Your task to perform on an android device: turn off translation in the chrome app Image 0: 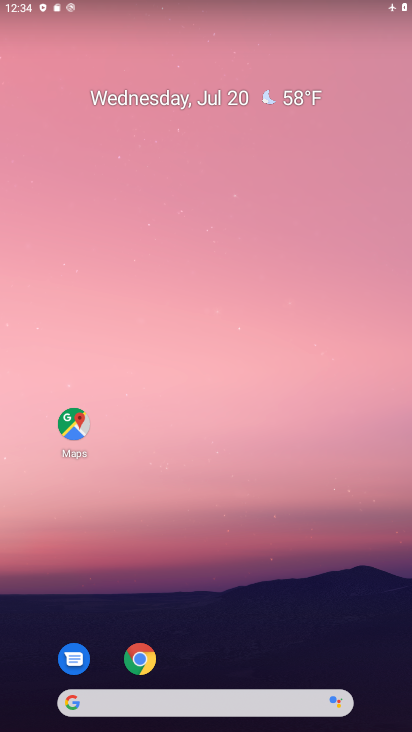
Step 0: press home button
Your task to perform on an android device: turn off translation in the chrome app Image 1: 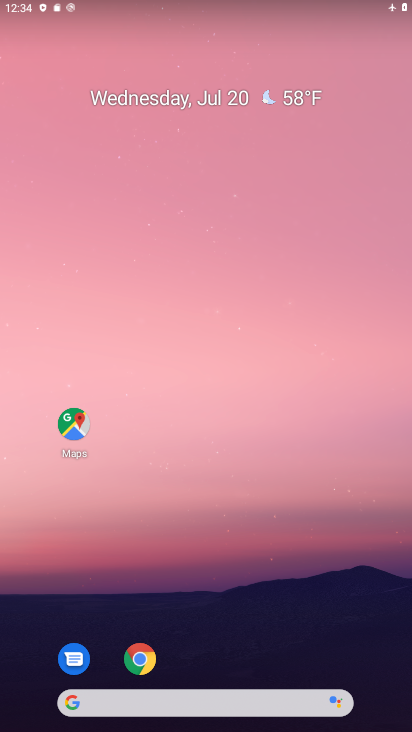
Step 1: drag from (216, 668) to (231, 57)
Your task to perform on an android device: turn off translation in the chrome app Image 2: 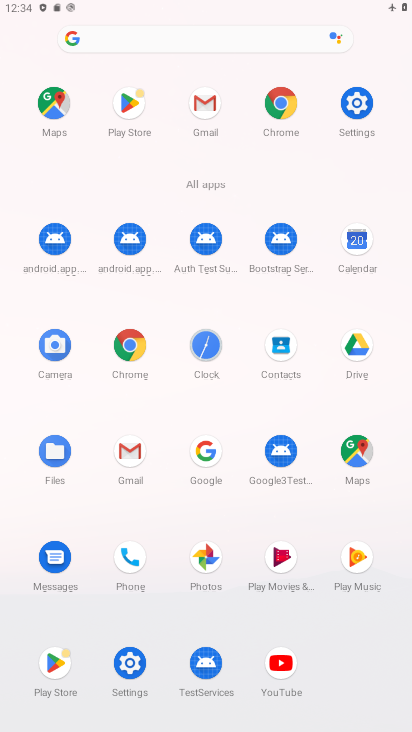
Step 2: click (126, 338)
Your task to perform on an android device: turn off translation in the chrome app Image 3: 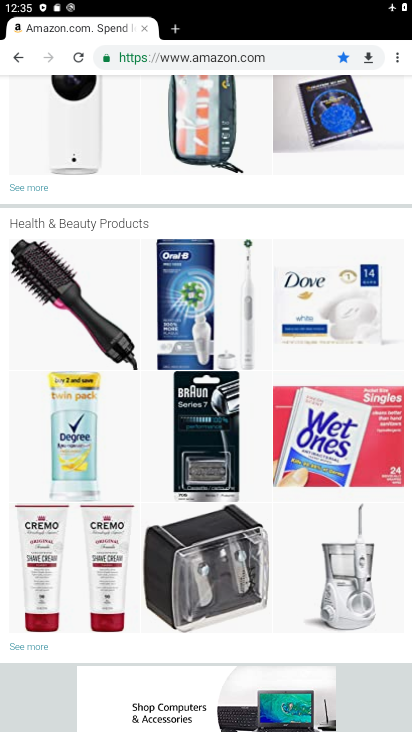
Step 3: click (399, 52)
Your task to perform on an android device: turn off translation in the chrome app Image 4: 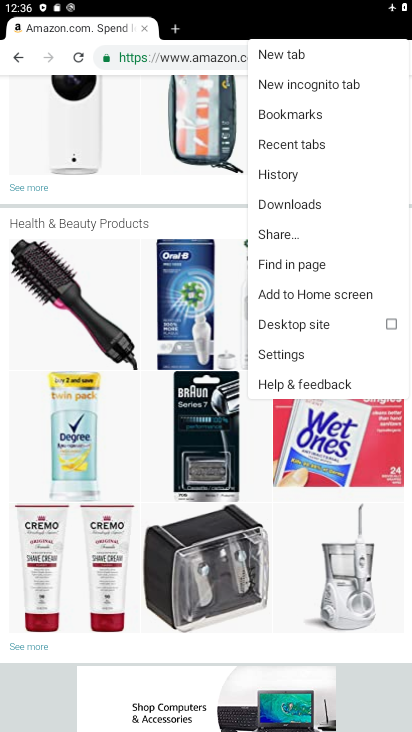
Step 4: click (309, 350)
Your task to perform on an android device: turn off translation in the chrome app Image 5: 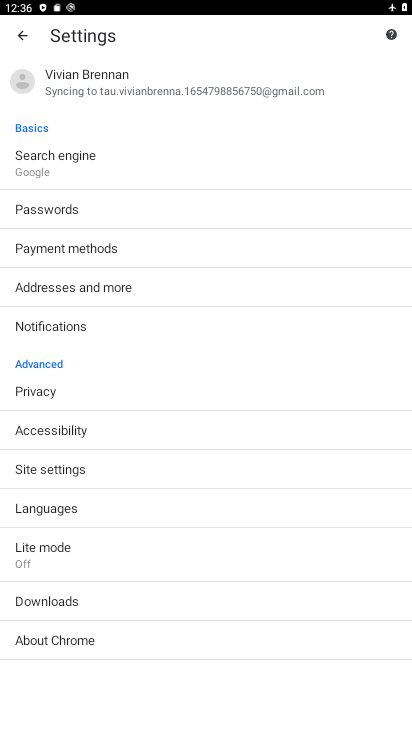
Step 5: click (87, 507)
Your task to perform on an android device: turn off translation in the chrome app Image 6: 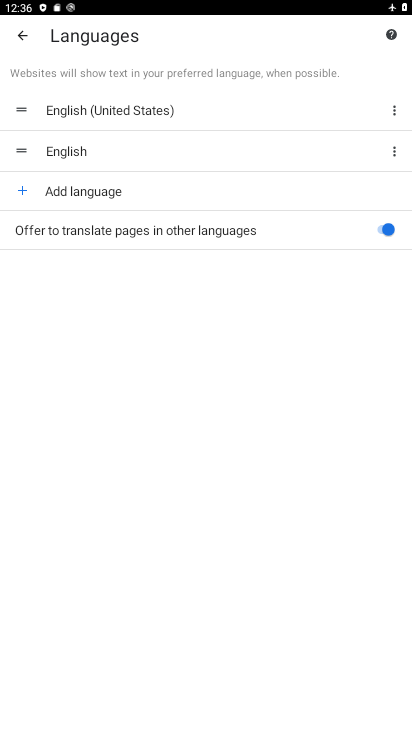
Step 6: click (381, 222)
Your task to perform on an android device: turn off translation in the chrome app Image 7: 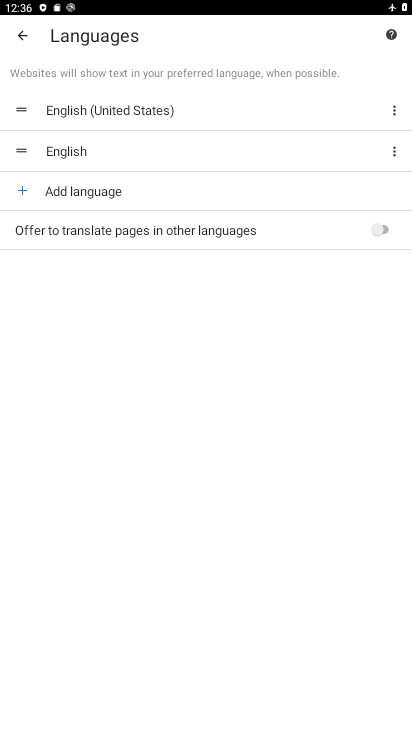
Step 7: task complete